Your task to perform on an android device: Install the Calendar app Image 0: 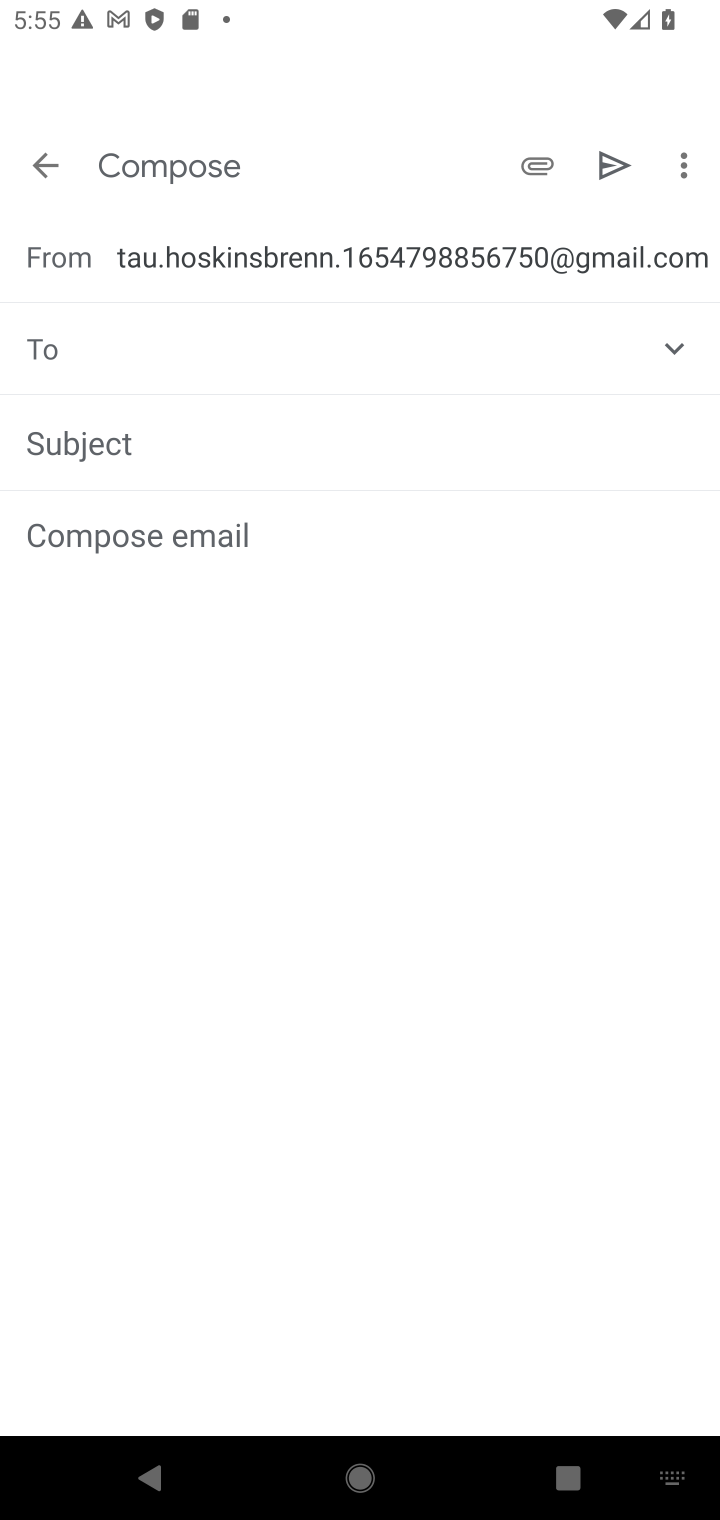
Step 0: press home button
Your task to perform on an android device: Install the Calendar app Image 1: 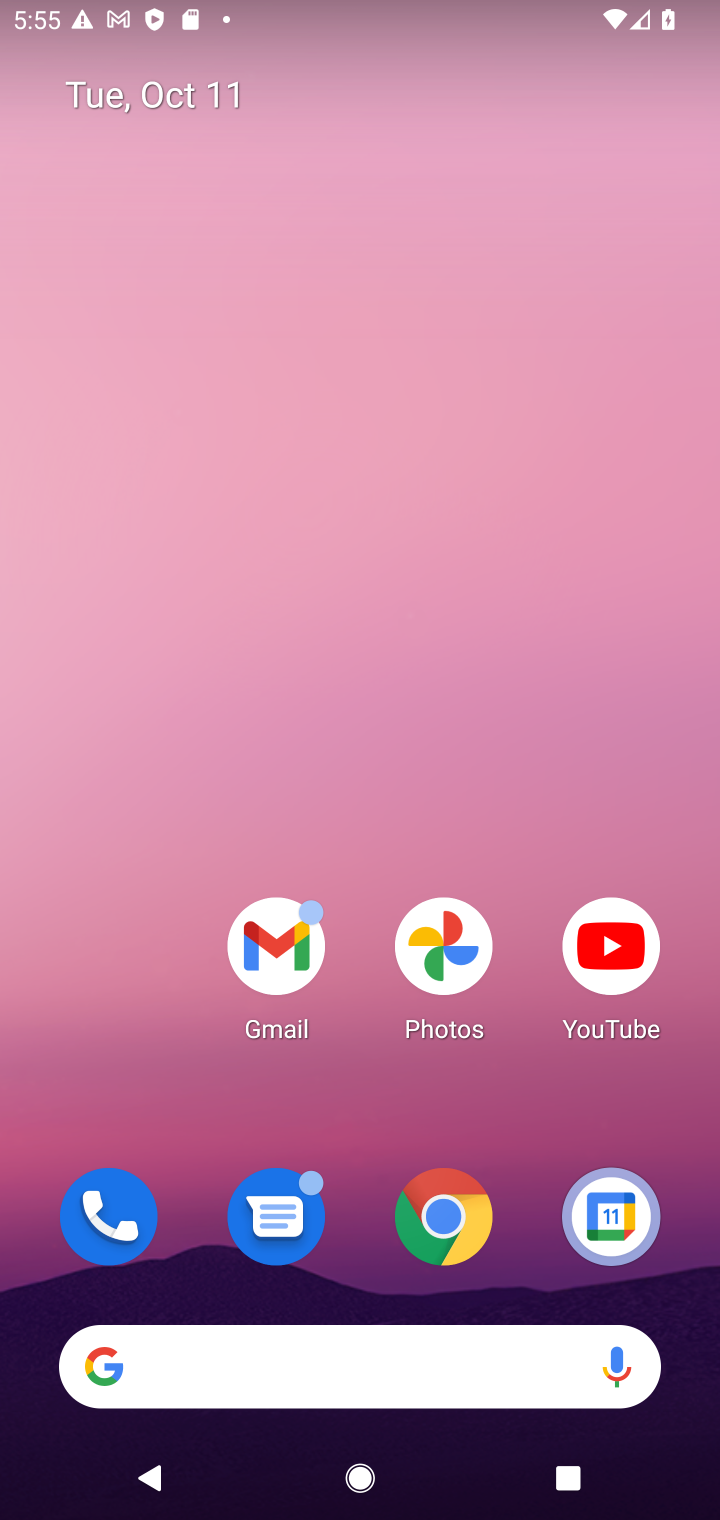
Step 1: drag from (325, 1361) to (488, 291)
Your task to perform on an android device: Install the Calendar app Image 2: 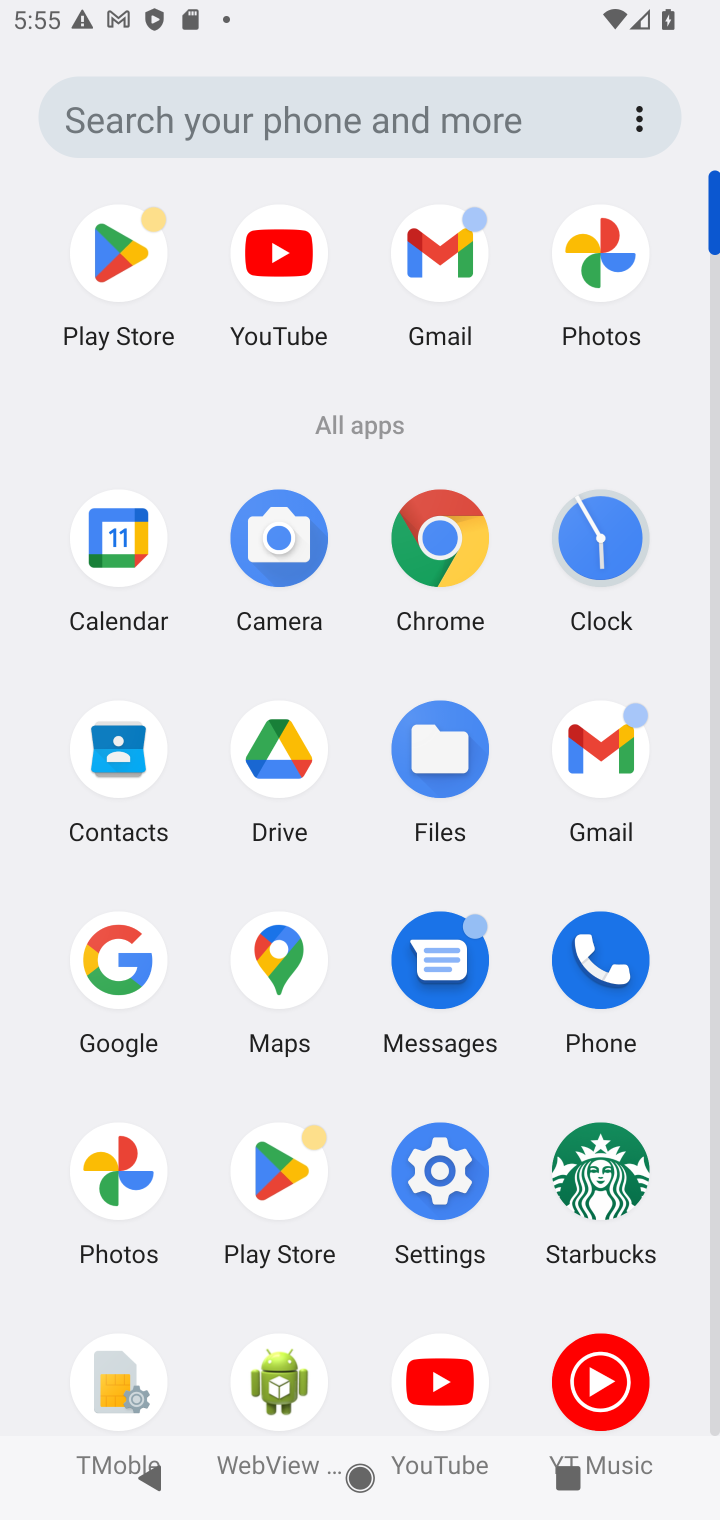
Step 2: click (124, 264)
Your task to perform on an android device: Install the Calendar app Image 3: 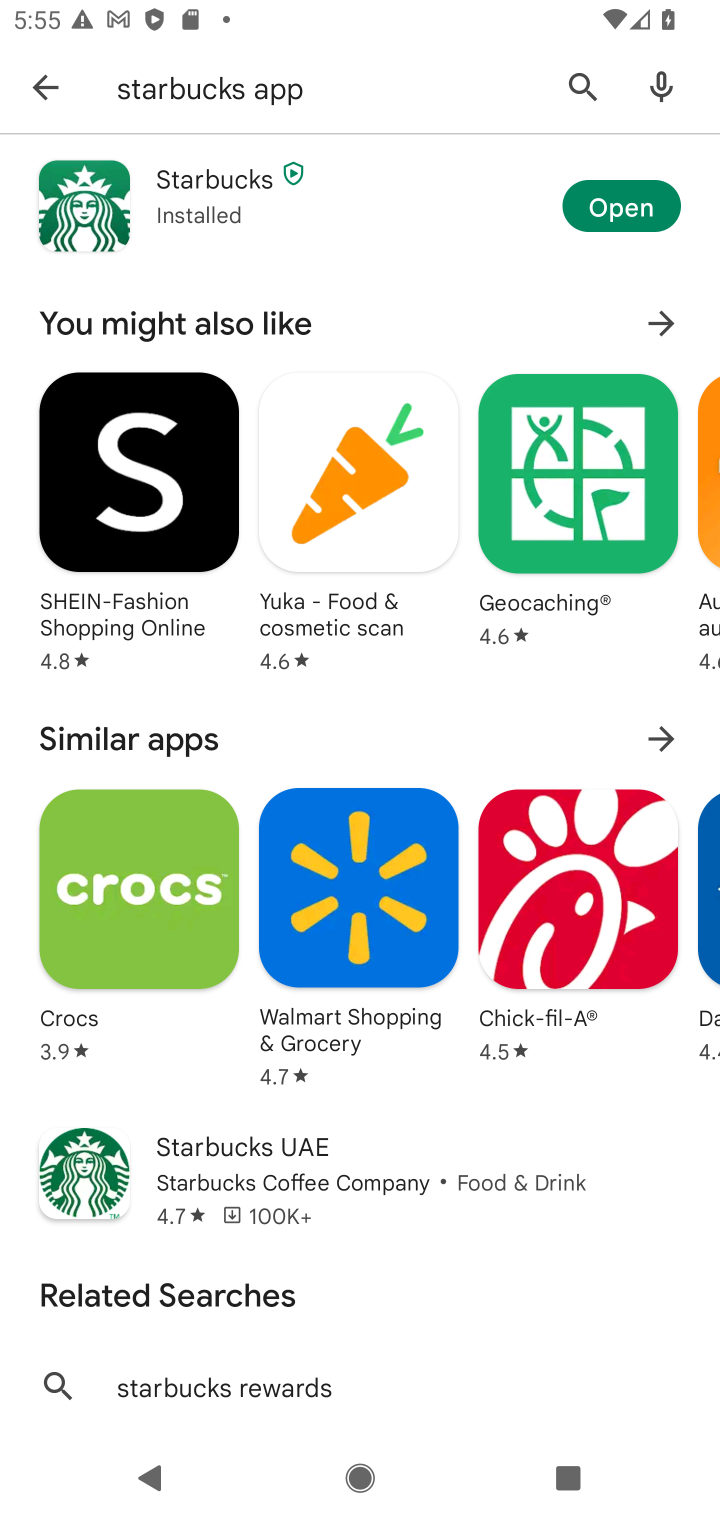
Step 3: press back button
Your task to perform on an android device: Install the Calendar app Image 4: 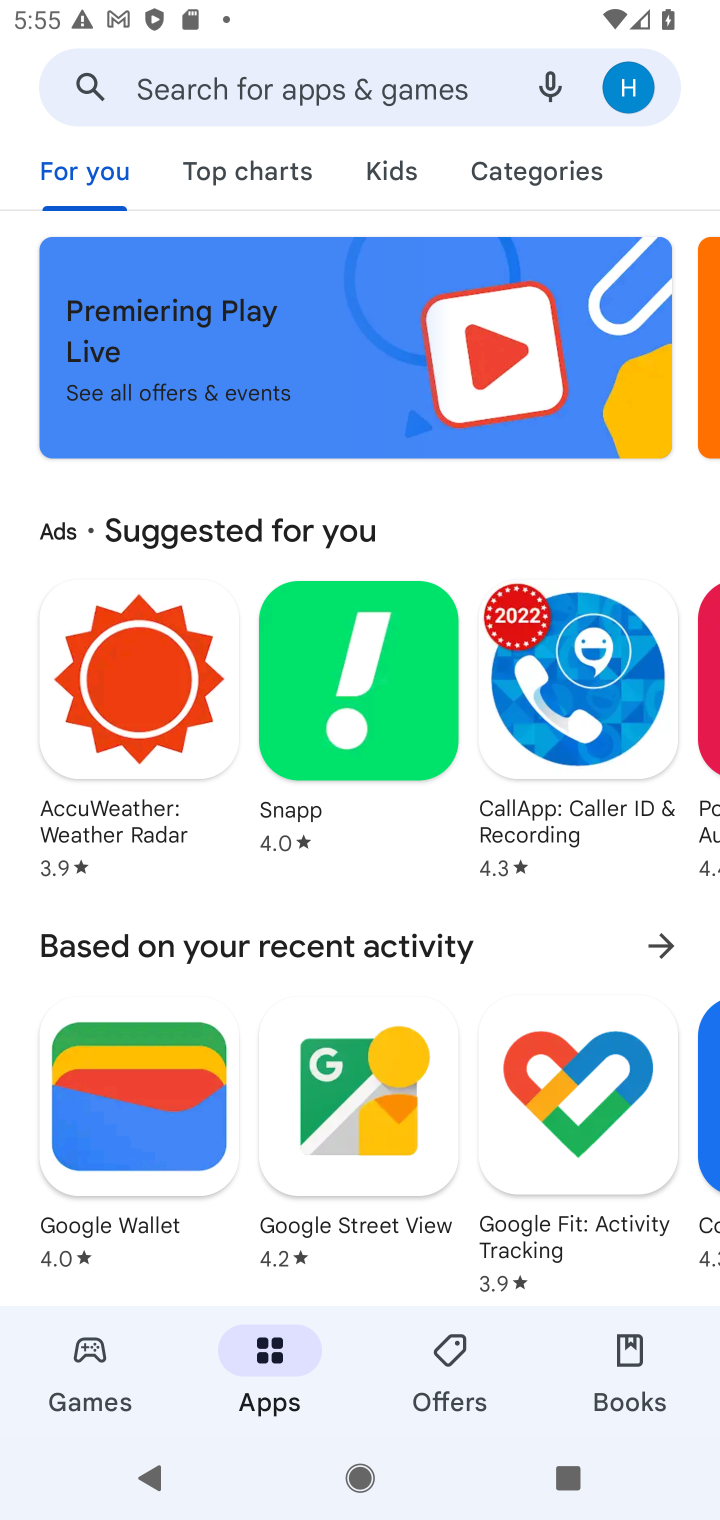
Step 4: click (448, 87)
Your task to perform on an android device: Install the Calendar app Image 5: 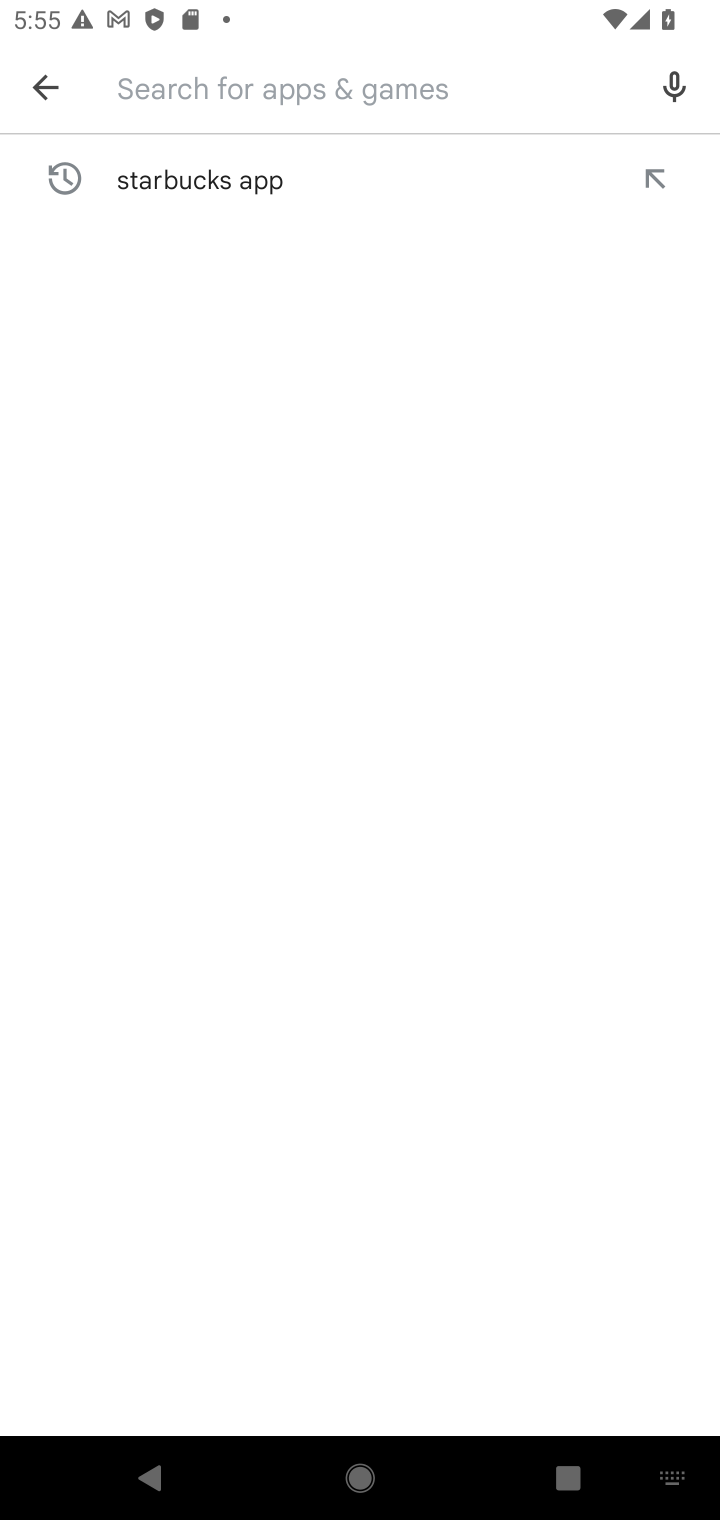
Step 5: type "Calendar"
Your task to perform on an android device: Install the Calendar app Image 6: 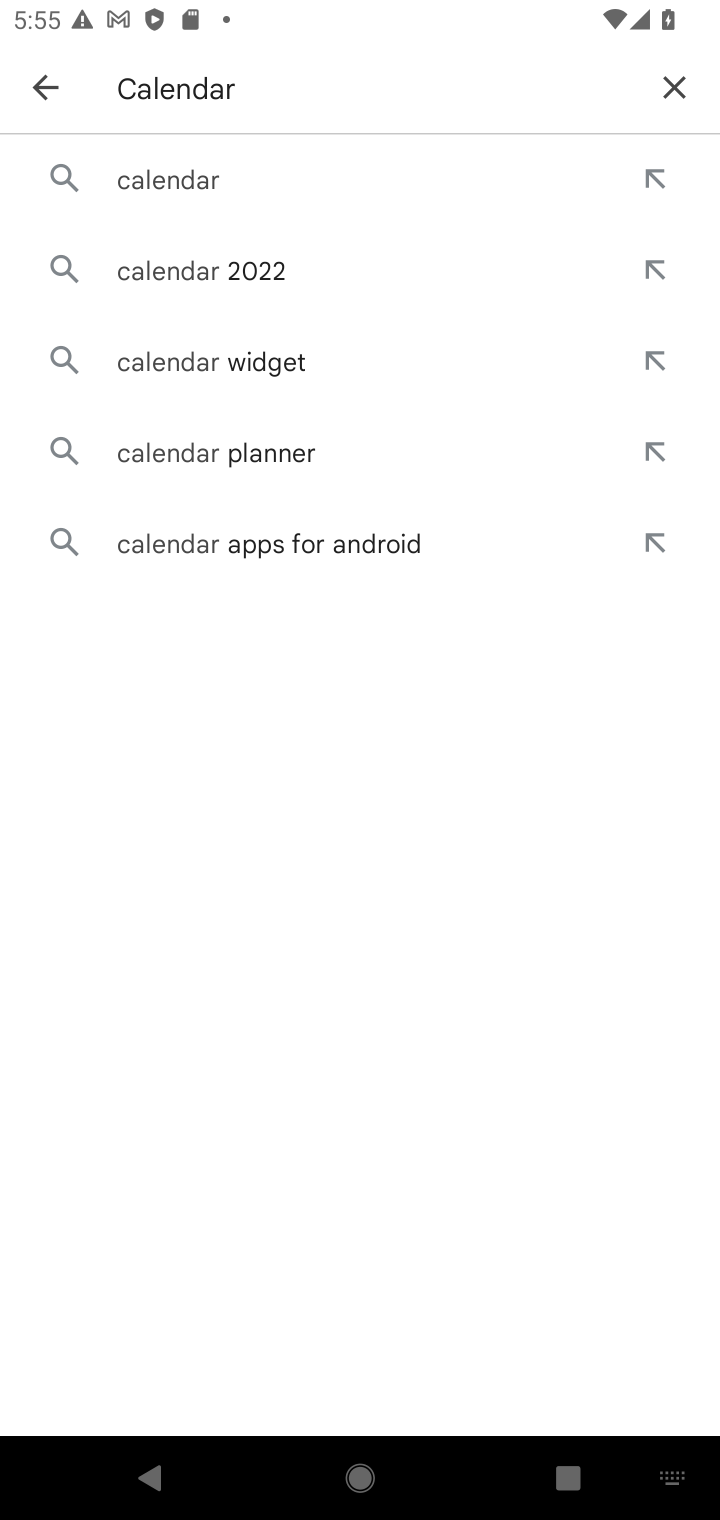
Step 6: click (150, 172)
Your task to perform on an android device: Install the Calendar app Image 7: 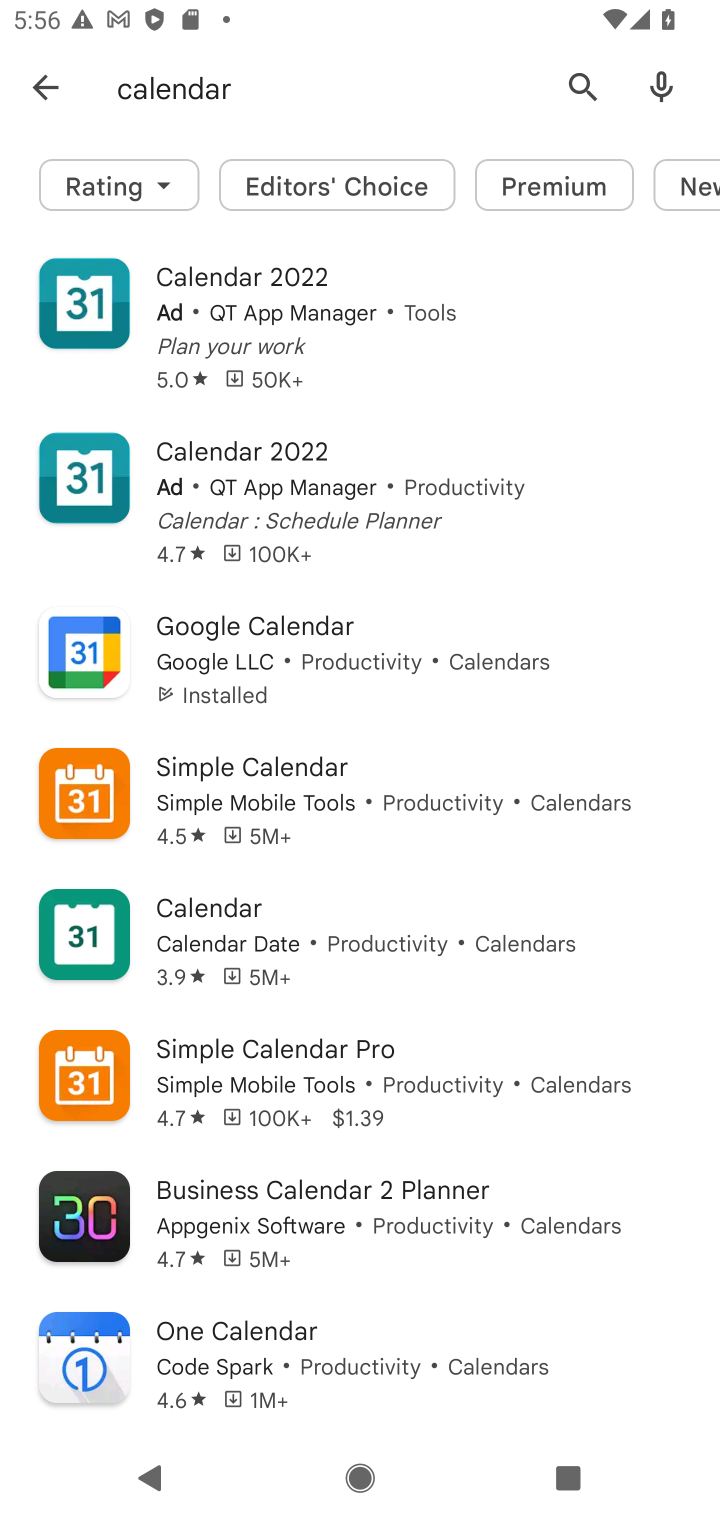
Step 7: click (231, 613)
Your task to perform on an android device: Install the Calendar app Image 8: 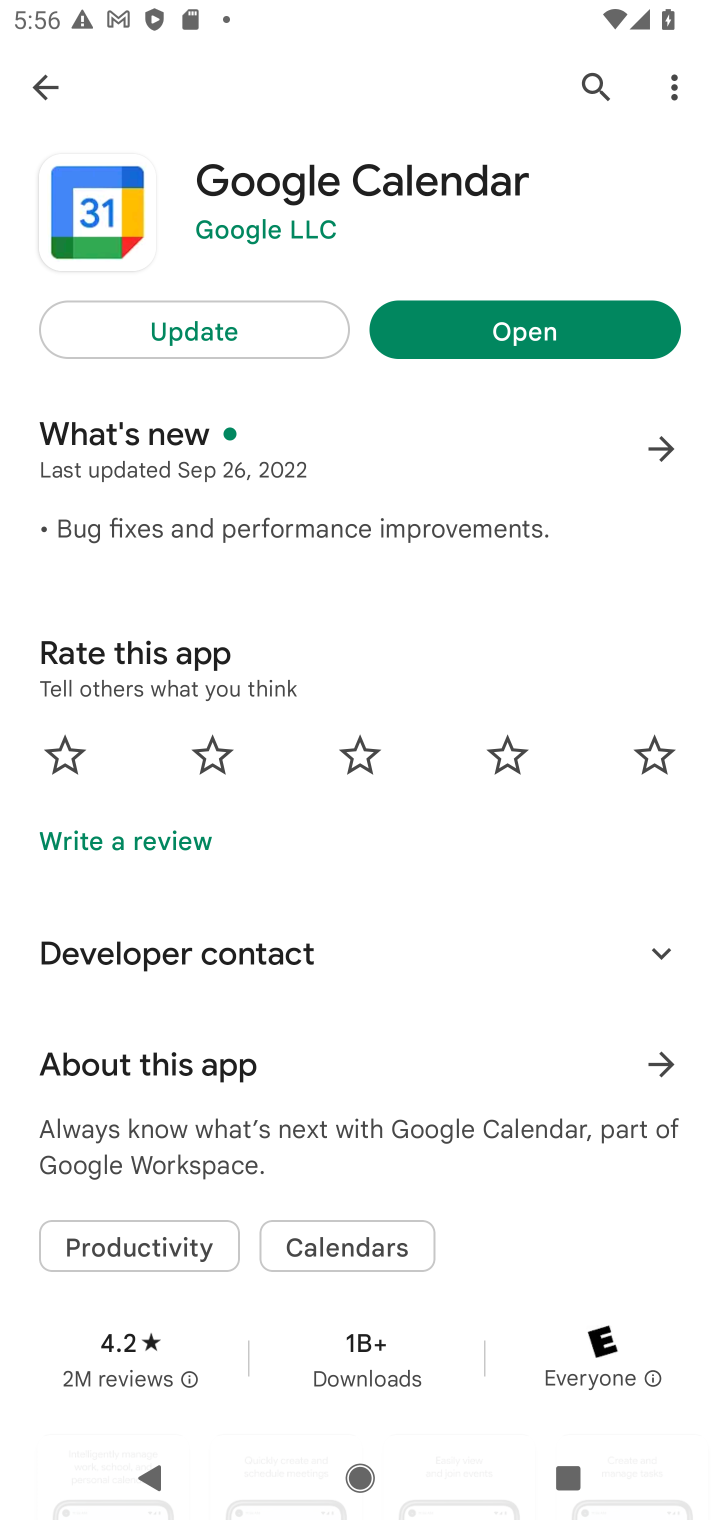
Step 8: click (205, 320)
Your task to perform on an android device: Install the Calendar app Image 9: 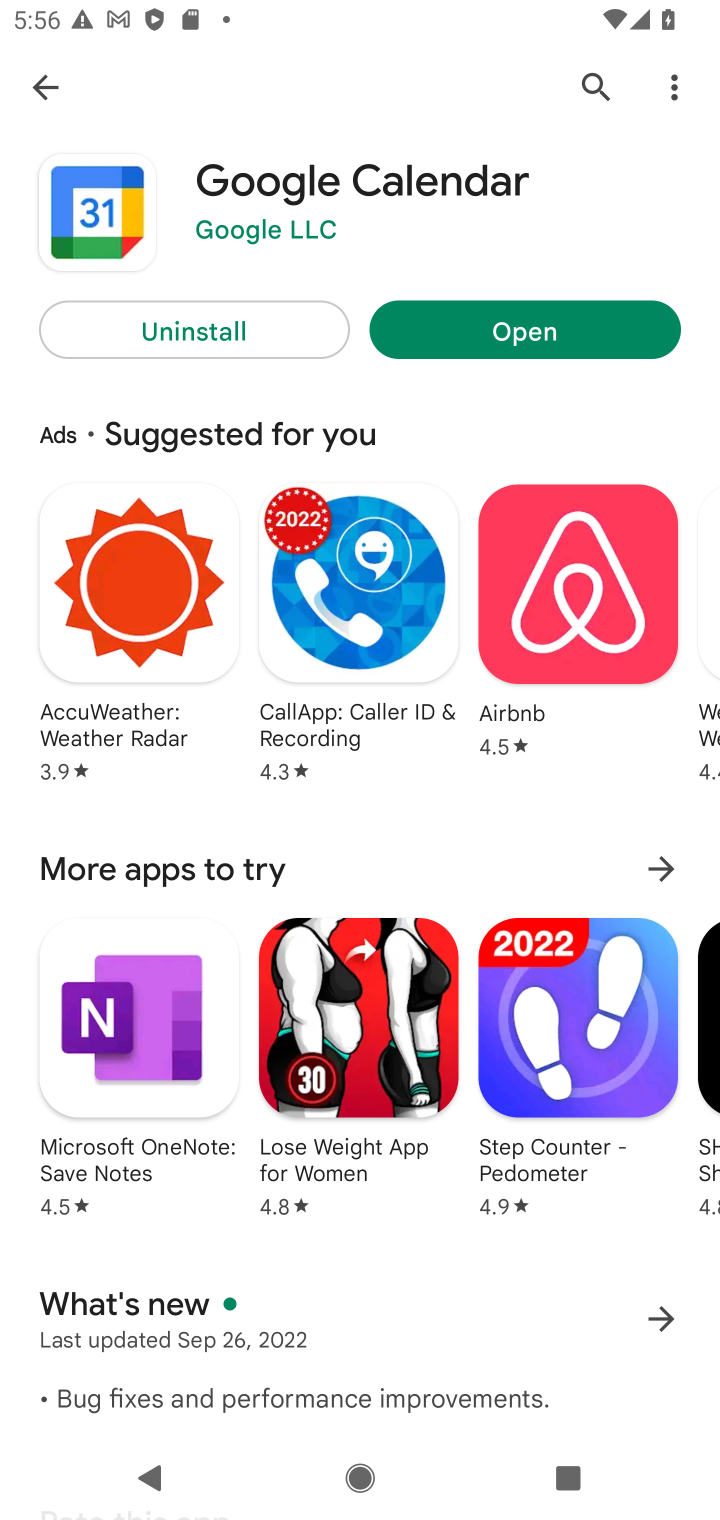
Step 9: task complete